Your task to perform on an android device: Show me popular games on the Play Store Image 0: 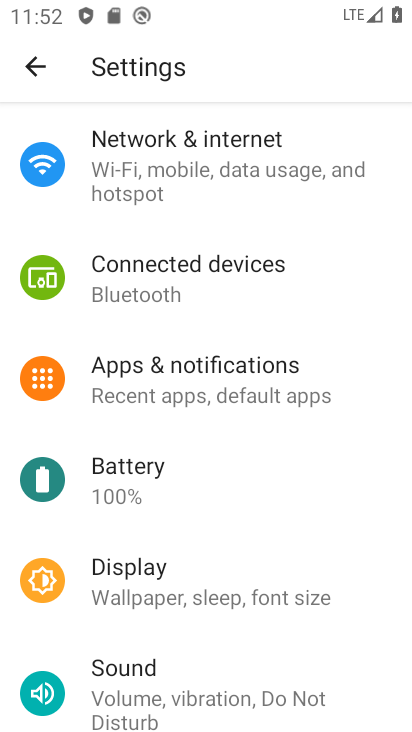
Step 0: press home button
Your task to perform on an android device: Show me popular games on the Play Store Image 1: 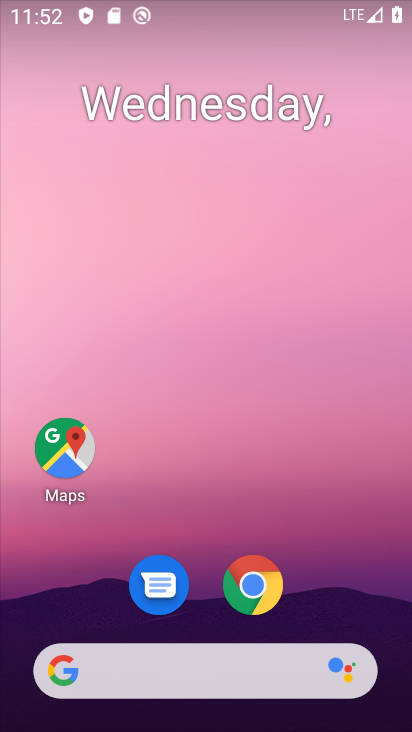
Step 1: drag from (216, 517) to (263, 1)
Your task to perform on an android device: Show me popular games on the Play Store Image 2: 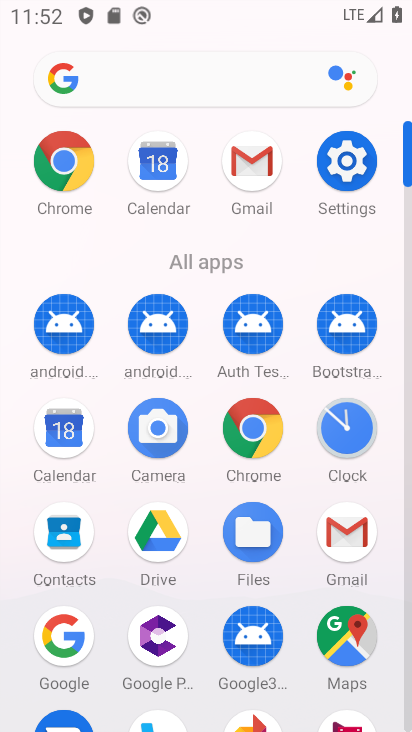
Step 2: drag from (193, 502) to (216, 106)
Your task to perform on an android device: Show me popular games on the Play Store Image 3: 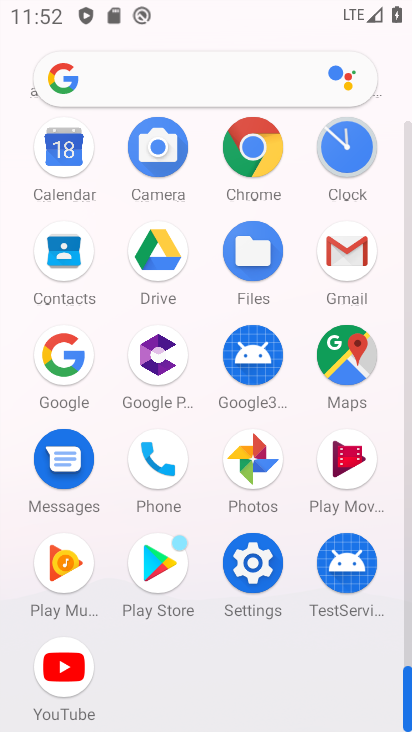
Step 3: click (159, 547)
Your task to perform on an android device: Show me popular games on the Play Store Image 4: 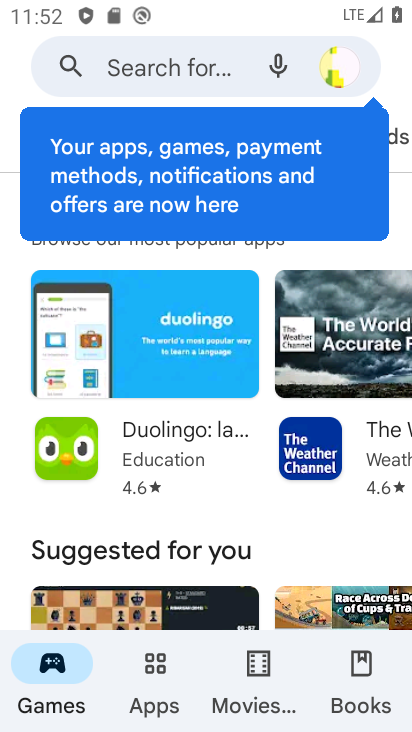
Step 4: drag from (215, 493) to (261, 205)
Your task to perform on an android device: Show me popular games on the Play Store Image 5: 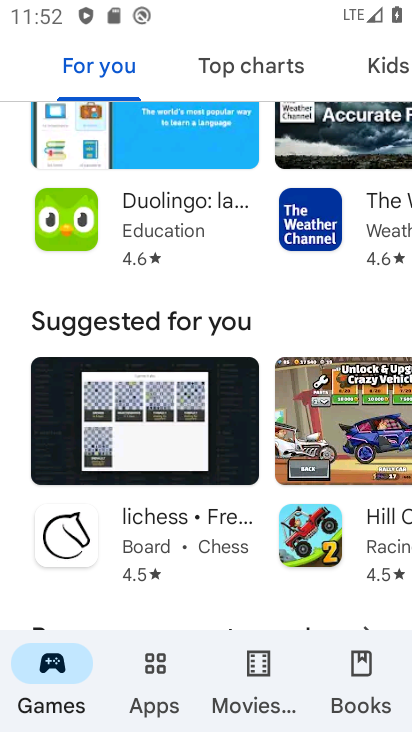
Step 5: drag from (236, 535) to (227, 180)
Your task to perform on an android device: Show me popular games on the Play Store Image 6: 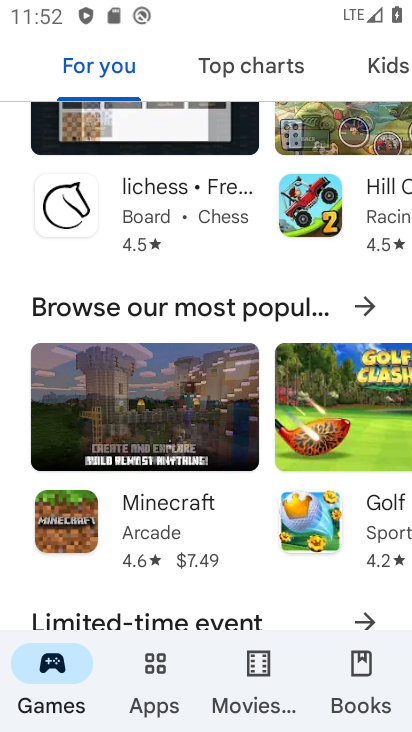
Step 6: click (357, 300)
Your task to perform on an android device: Show me popular games on the Play Store Image 7: 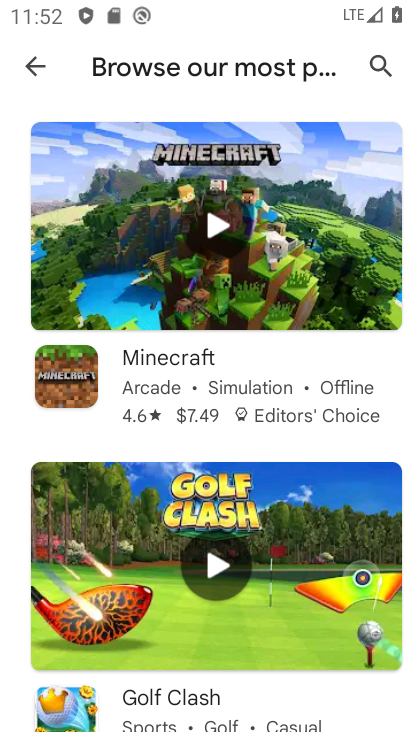
Step 7: task complete